Your task to perform on an android device: When is my next appointment? Image 0: 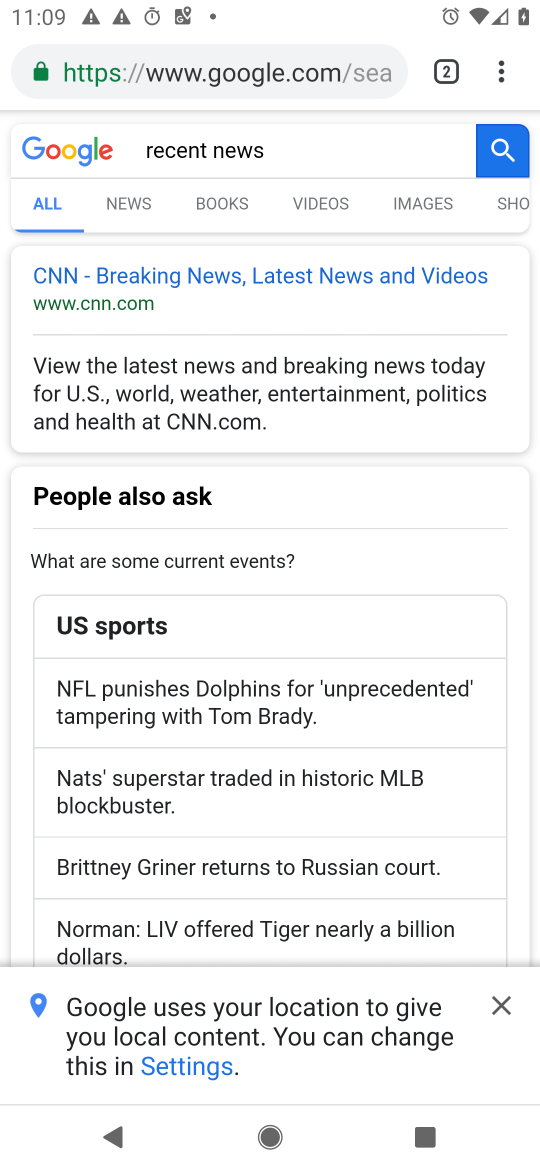
Step 0: drag from (327, 647) to (329, 298)
Your task to perform on an android device: When is my next appointment? Image 1: 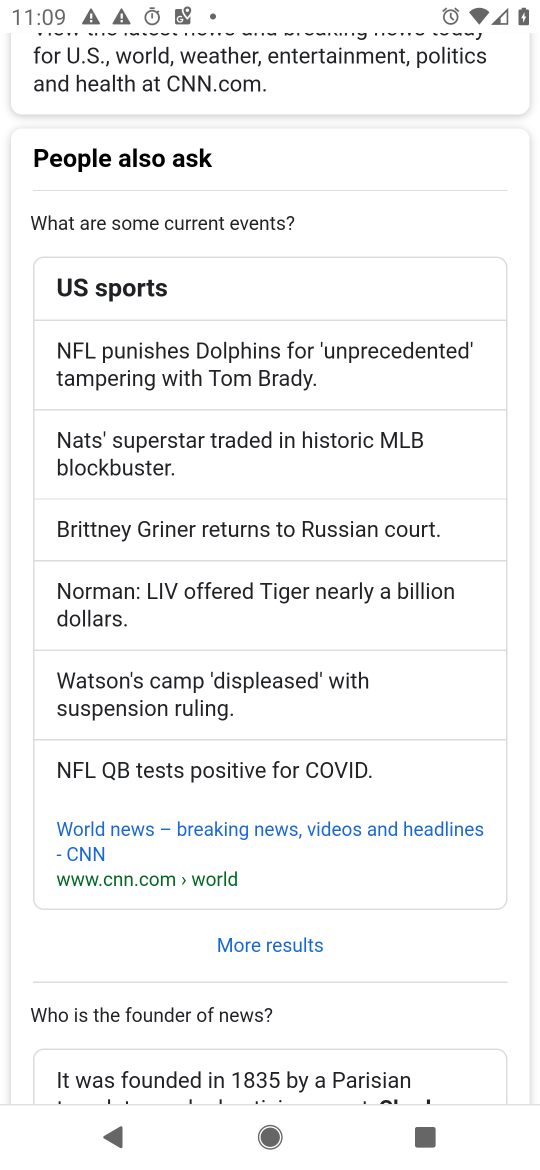
Step 1: drag from (269, 386) to (277, 1133)
Your task to perform on an android device: When is my next appointment? Image 2: 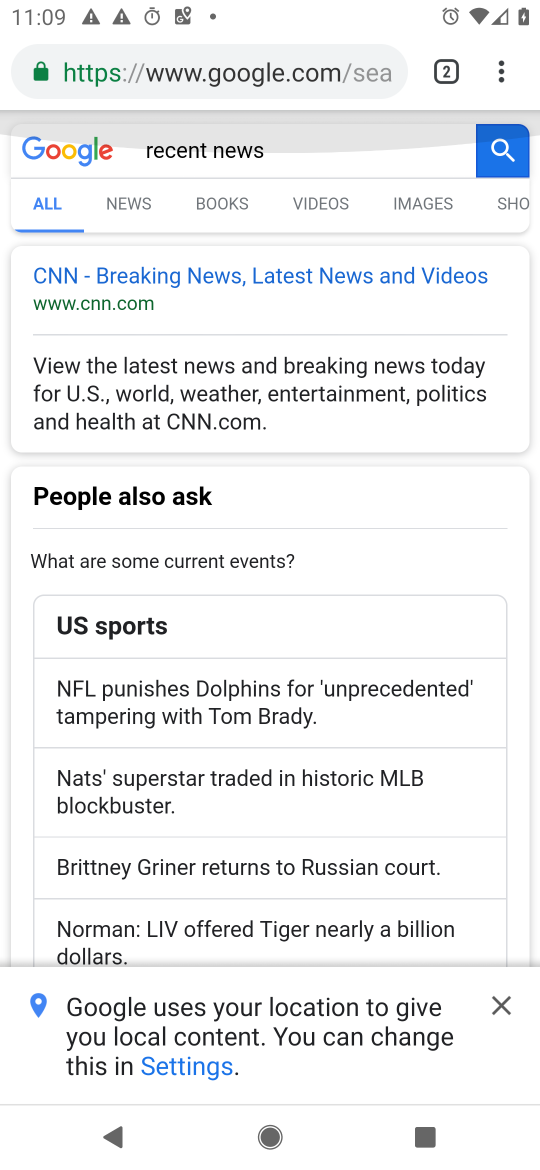
Step 2: press home button
Your task to perform on an android device: When is my next appointment? Image 3: 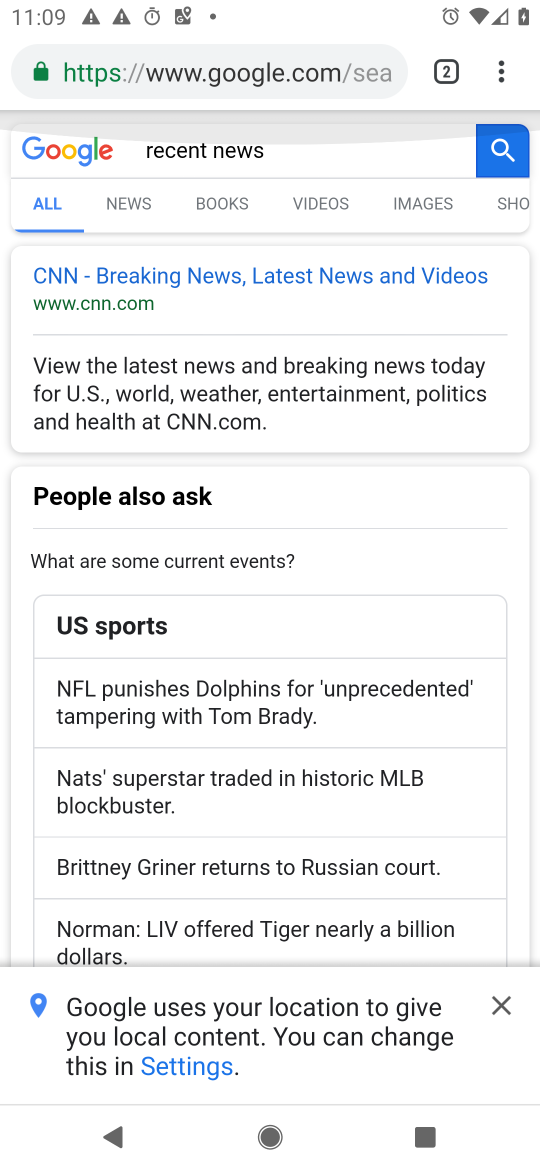
Step 3: click (536, 269)
Your task to perform on an android device: When is my next appointment? Image 4: 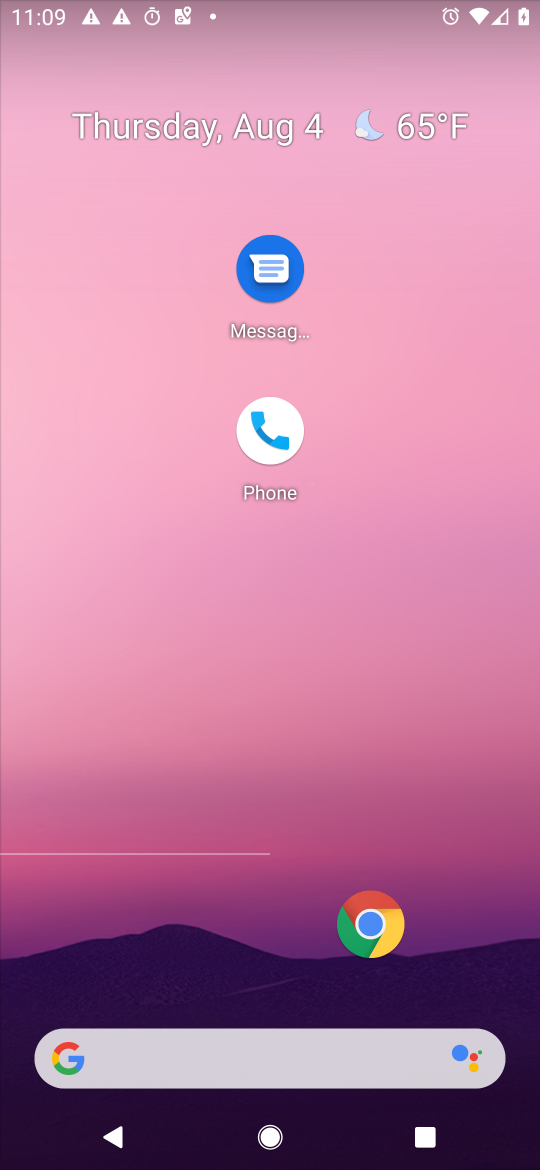
Step 4: drag from (281, 847) to (375, 302)
Your task to perform on an android device: When is my next appointment? Image 5: 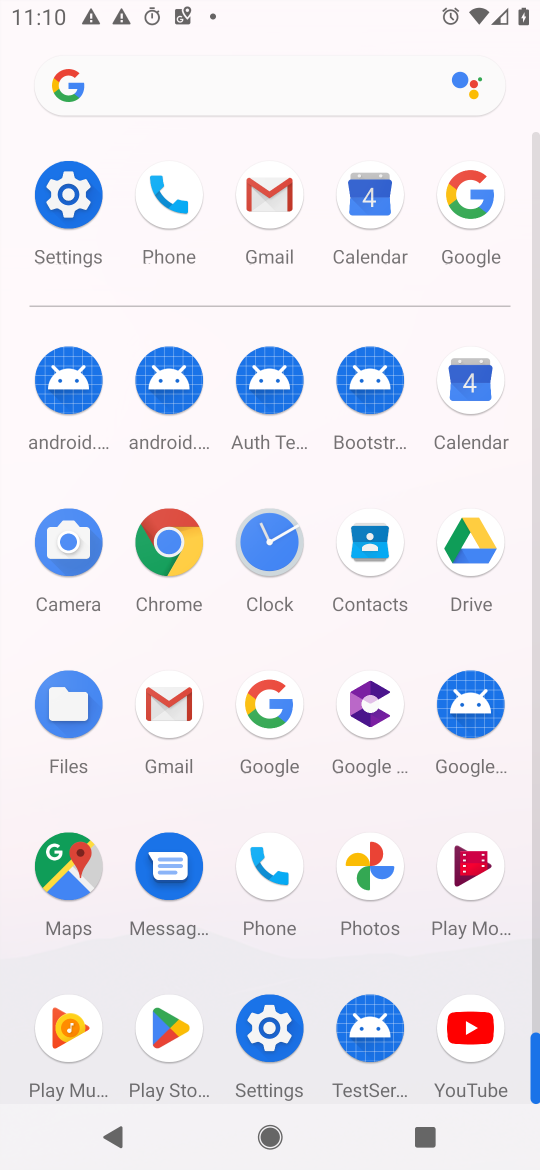
Step 5: click (463, 379)
Your task to perform on an android device: When is my next appointment? Image 6: 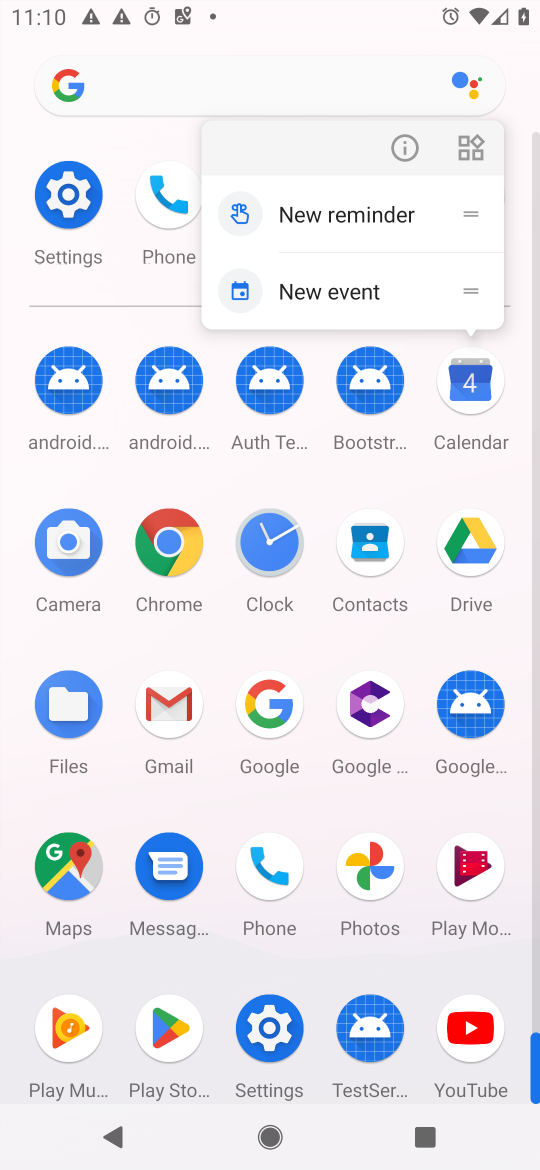
Step 6: click (394, 155)
Your task to perform on an android device: When is my next appointment? Image 7: 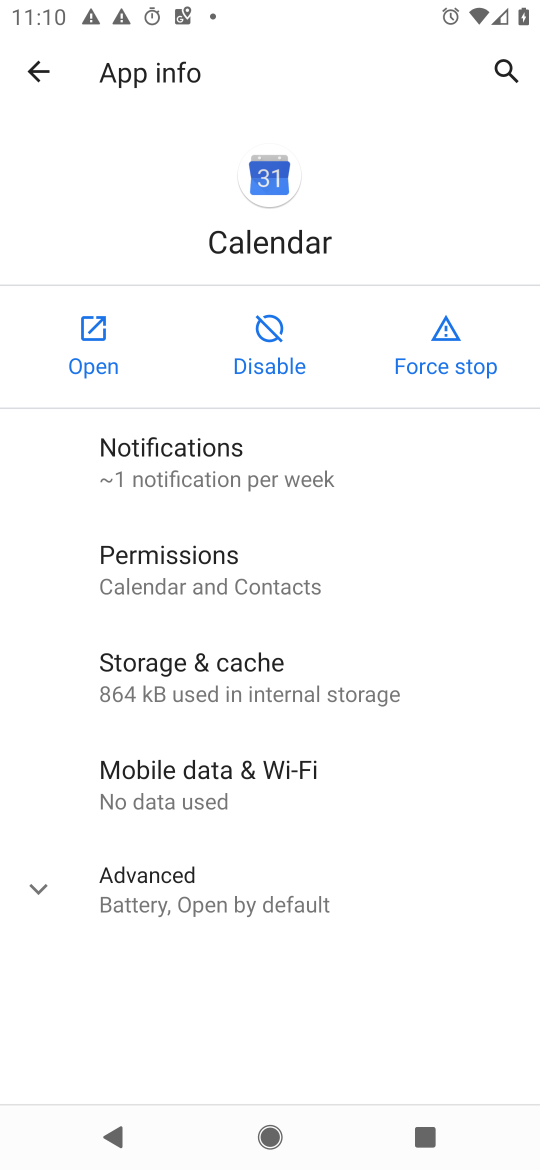
Step 7: click (95, 347)
Your task to perform on an android device: When is my next appointment? Image 8: 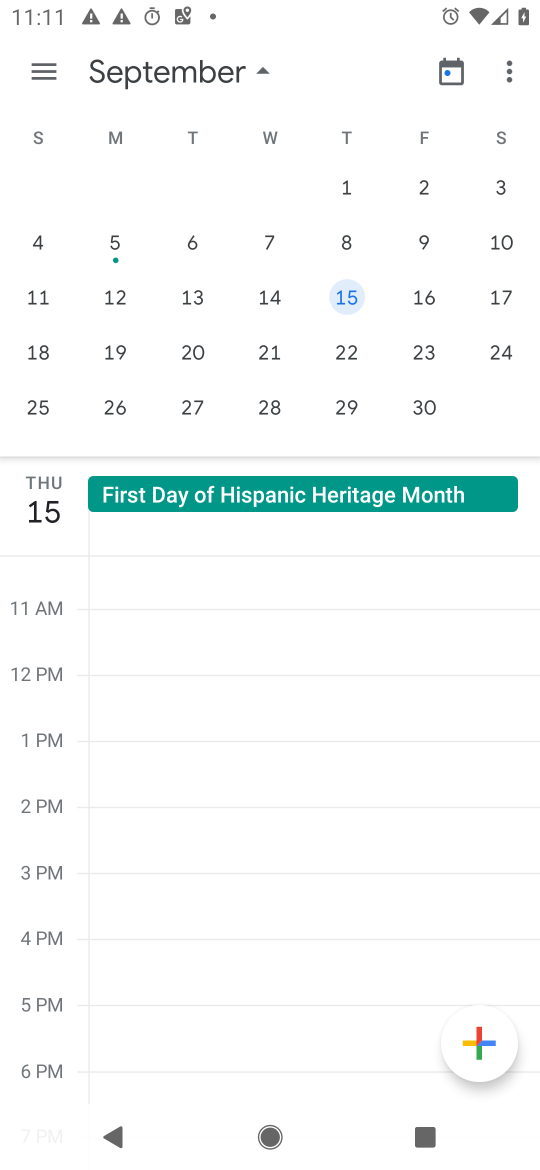
Step 8: drag from (49, 345) to (514, 358)
Your task to perform on an android device: When is my next appointment? Image 9: 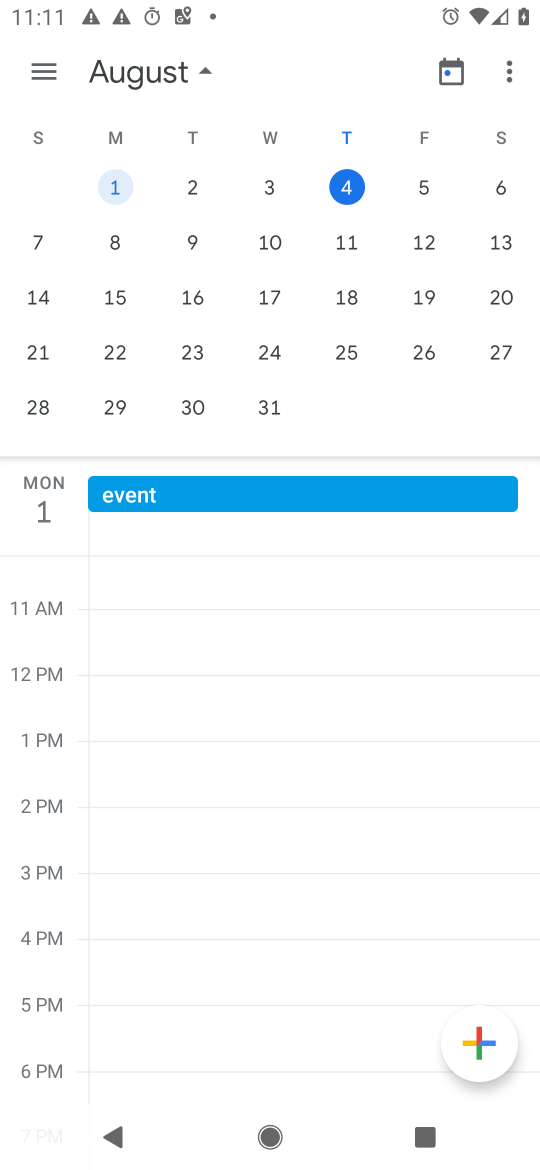
Step 9: click (453, 62)
Your task to perform on an android device: When is my next appointment? Image 10: 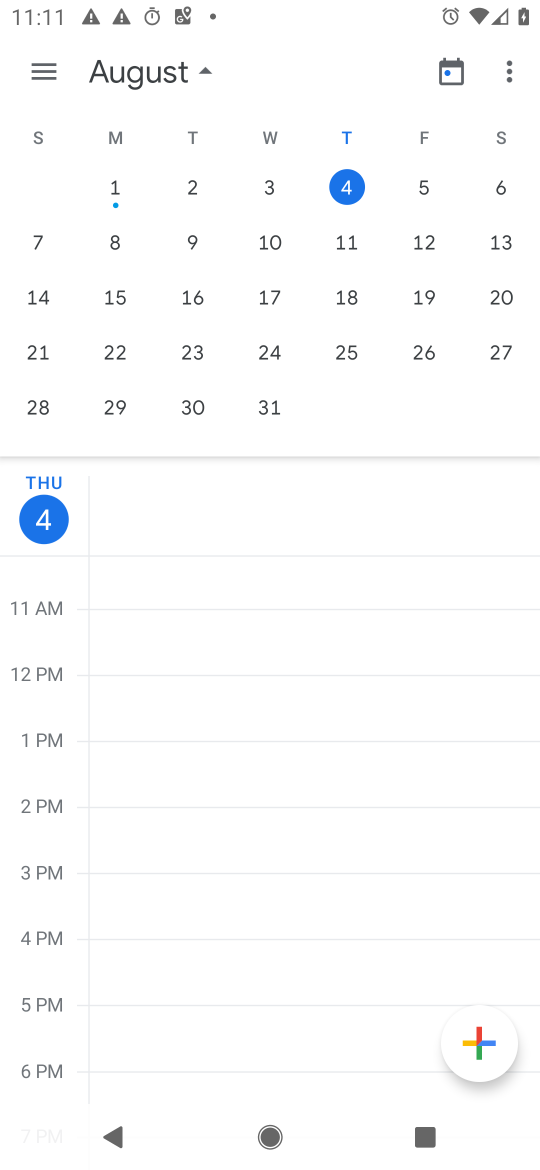
Step 10: click (345, 175)
Your task to perform on an android device: When is my next appointment? Image 11: 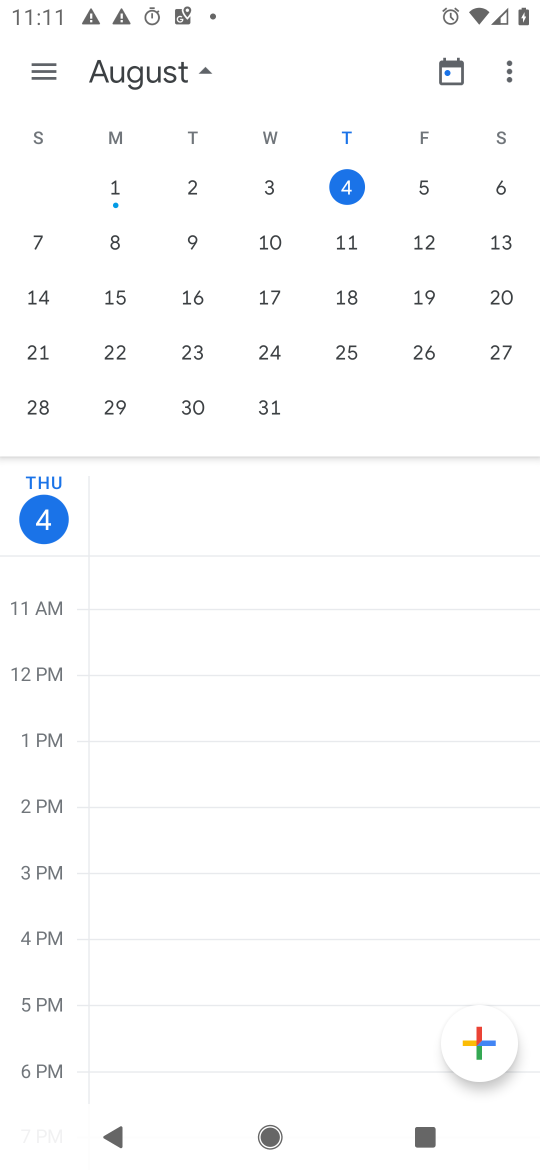
Step 11: drag from (250, 803) to (376, 153)
Your task to perform on an android device: When is my next appointment? Image 12: 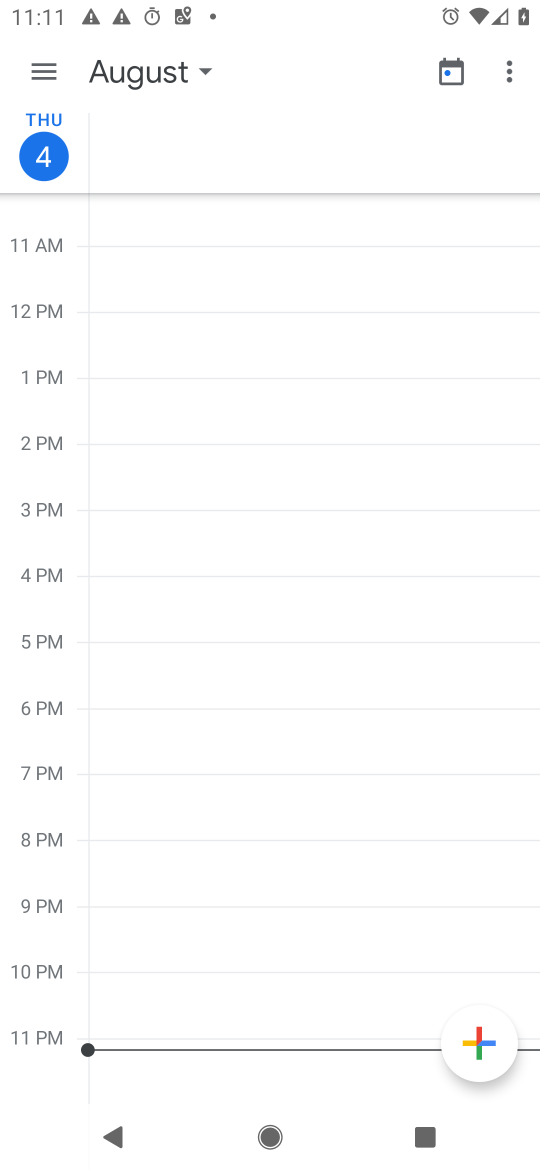
Step 12: drag from (381, 403) to (534, 570)
Your task to perform on an android device: When is my next appointment? Image 13: 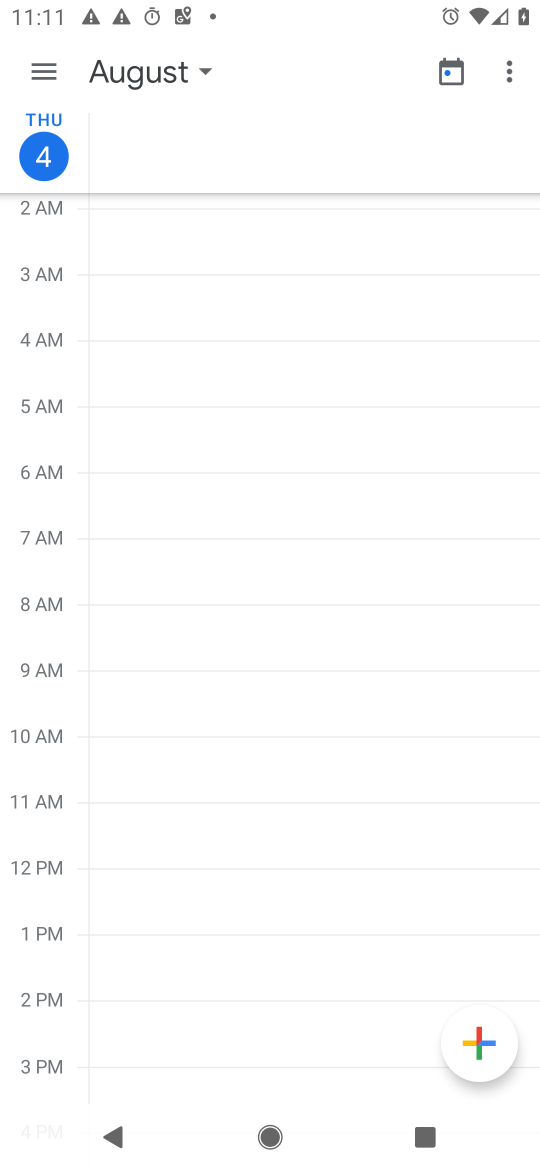
Step 13: drag from (298, 895) to (416, 493)
Your task to perform on an android device: When is my next appointment? Image 14: 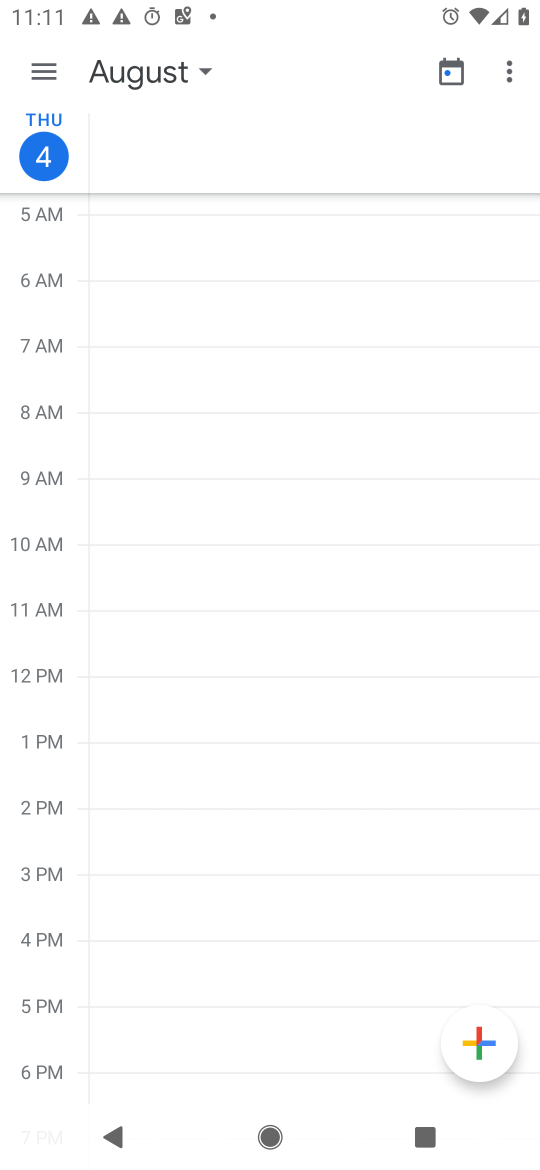
Step 14: drag from (433, 424) to (454, 1145)
Your task to perform on an android device: When is my next appointment? Image 15: 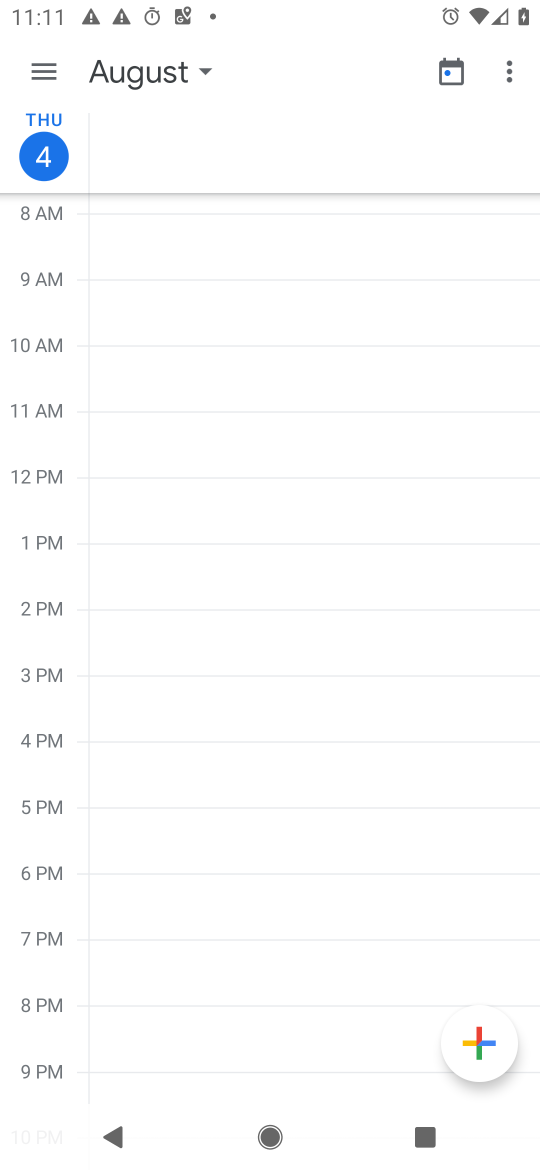
Step 15: click (142, 67)
Your task to perform on an android device: When is my next appointment? Image 16: 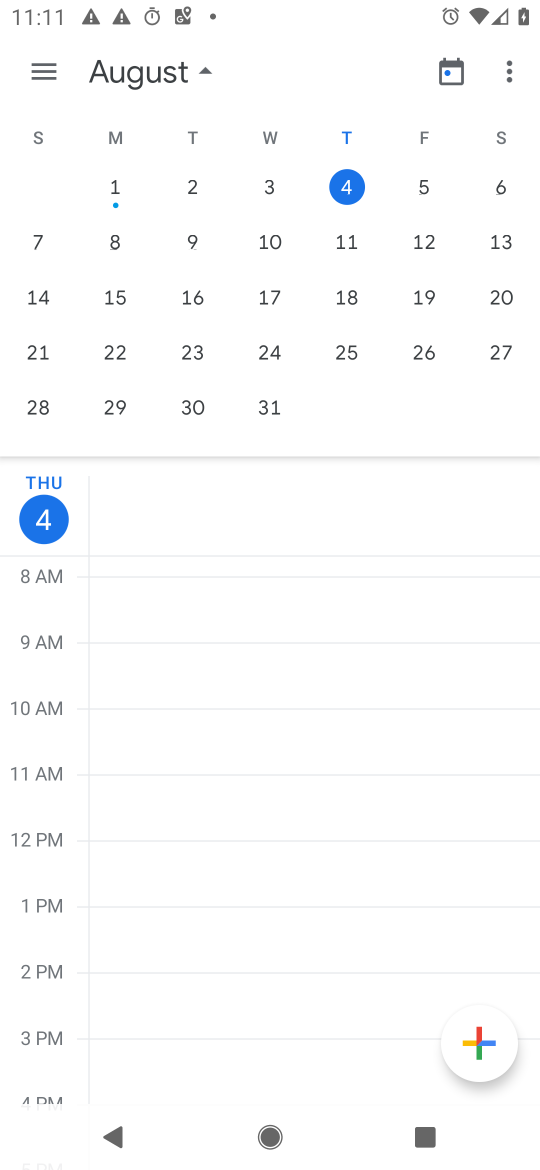
Step 16: click (351, 187)
Your task to perform on an android device: When is my next appointment? Image 17: 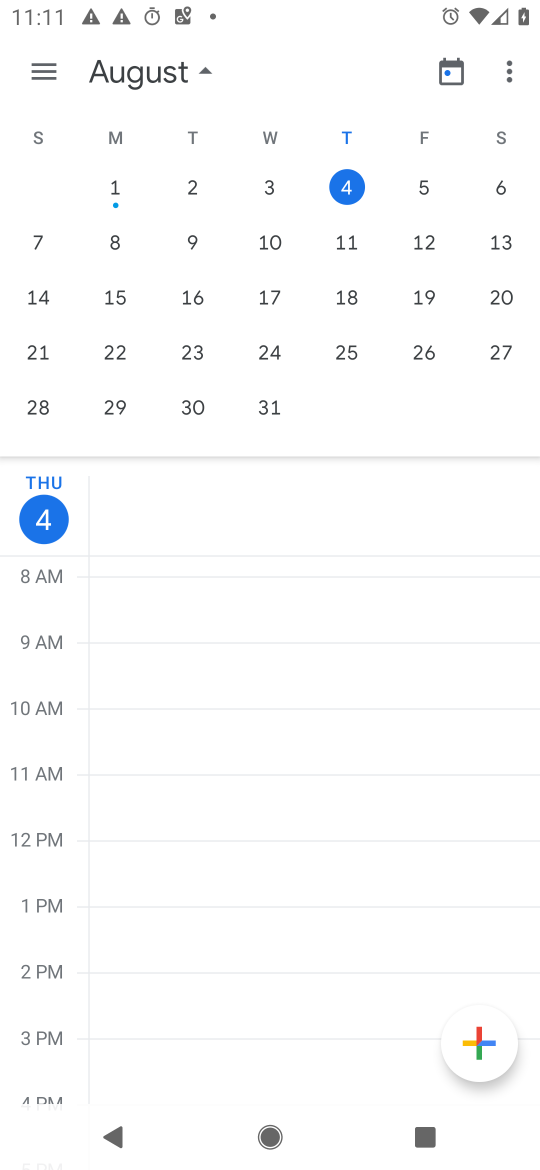
Step 17: task complete